Your task to perform on an android device: Go to sound settings Image 0: 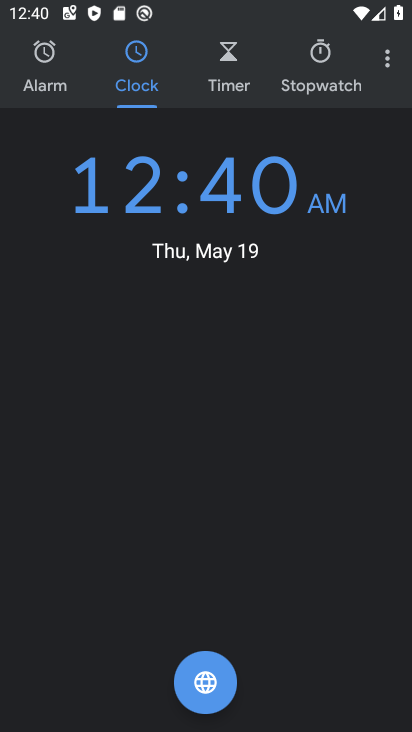
Step 0: press home button
Your task to perform on an android device: Go to sound settings Image 1: 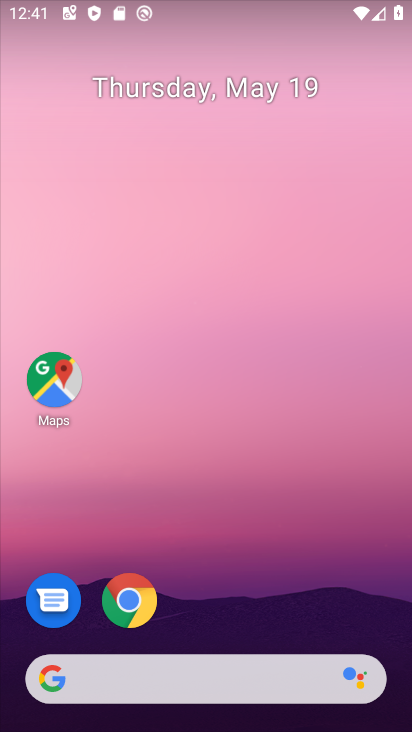
Step 1: drag from (276, 625) to (218, 81)
Your task to perform on an android device: Go to sound settings Image 2: 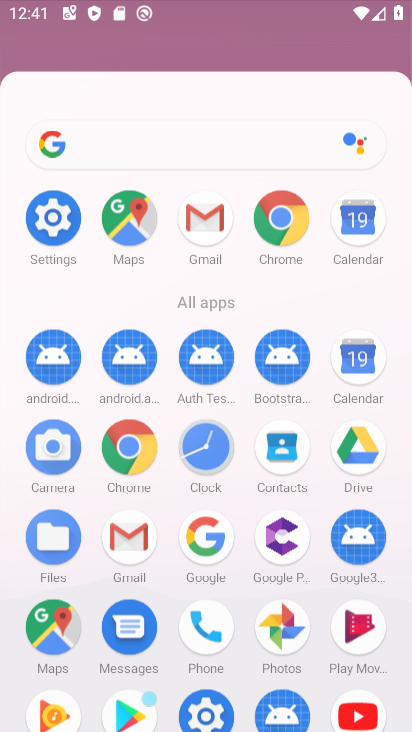
Step 2: click (218, 81)
Your task to perform on an android device: Go to sound settings Image 3: 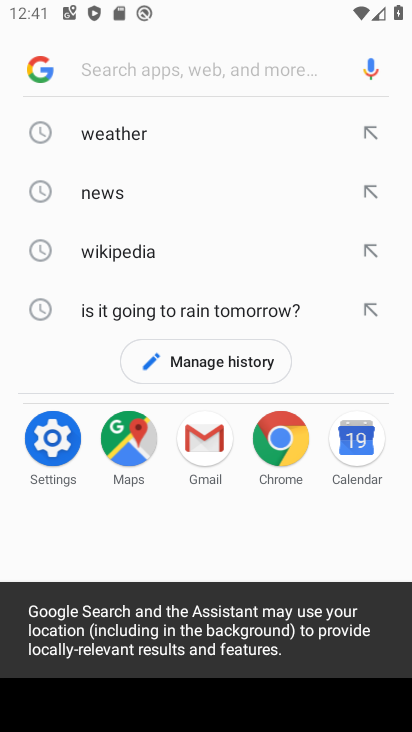
Step 3: click (61, 454)
Your task to perform on an android device: Go to sound settings Image 4: 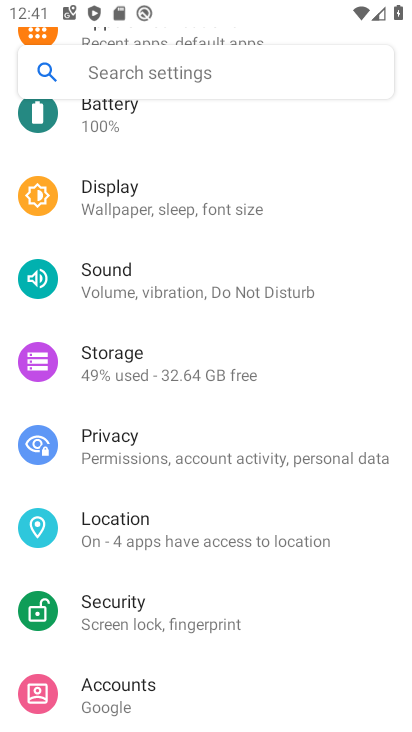
Step 4: click (130, 282)
Your task to perform on an android device: Go to sound settings Image 5: 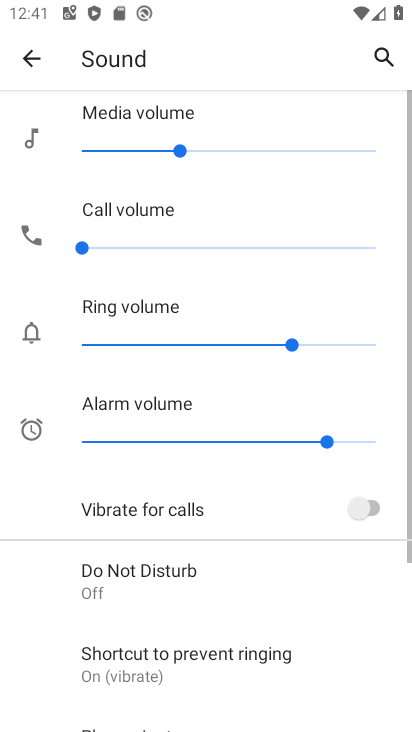
Step 5: task complete